Your task to perform on an android device: turn off smart reply in the gmail app Image 0: 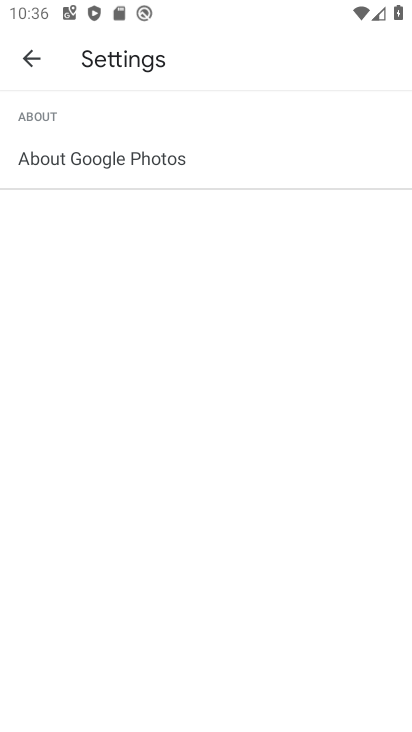
Step 0: press home button
Your task to perform on an android device: turn off smart reply in the gmail app Image 1: 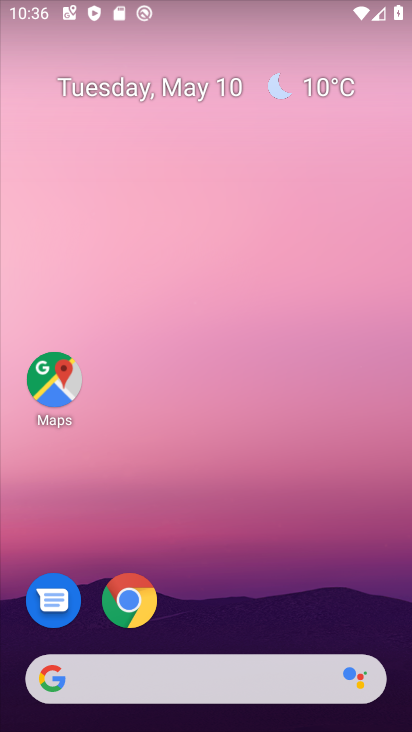
Step 1: drag from (271, 361) to (225, 90)
Your task to perform on an android device: turn off smart reply in the gmail app Image 2: 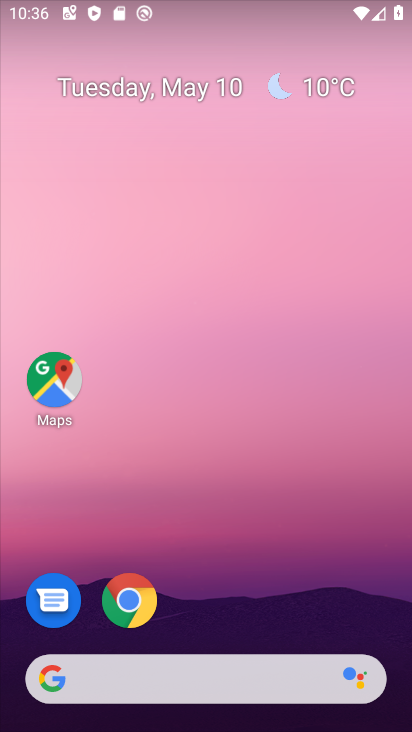
Step 2: drag from (239, 548) to (209, 45)
Your task to perform on an android device: turn off smart reply in the gmail app Image 3: 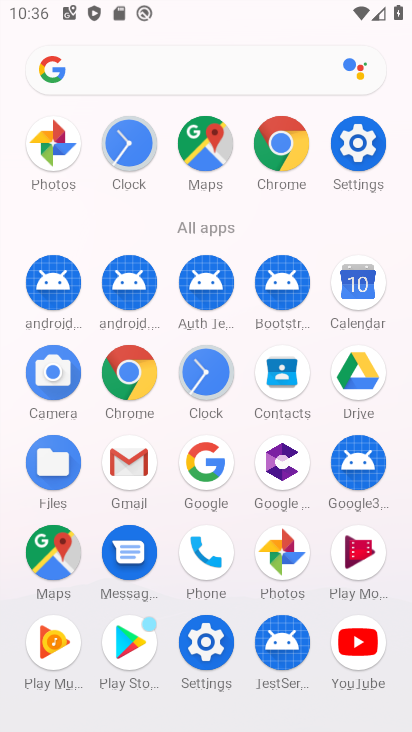
Step 3: click (109, 474)
Your task to perform on an android device: turn off smart reply in the gmail app Image 4: 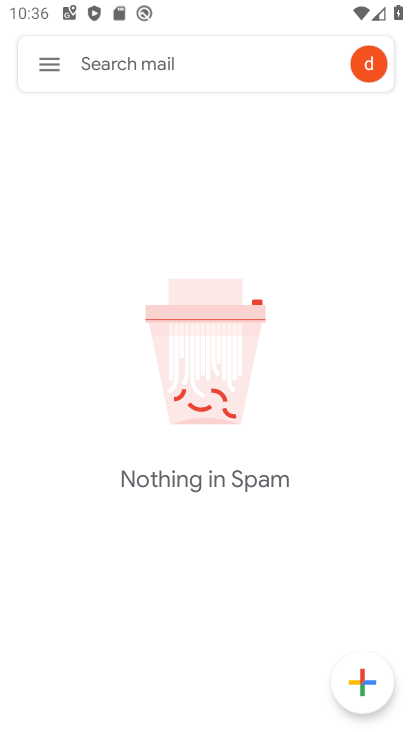
Step 4: click (50, 58)
Your task to perform on an android device: turn off smart reply in the gmail app Image 5: 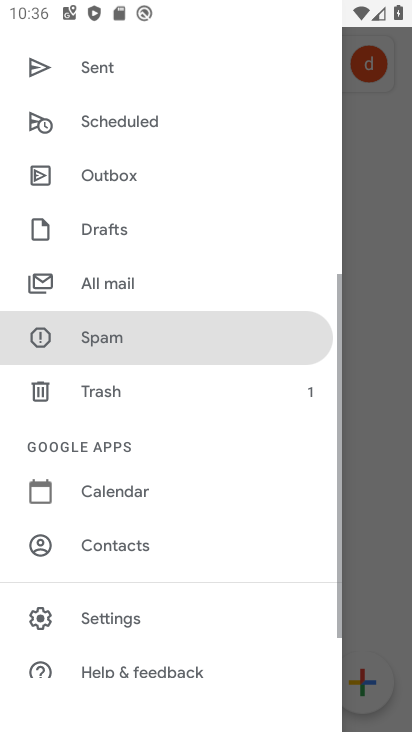
Step 5: click (140, 612)
Your task to perform on an android device: turn off smart reply in the gmail app Image 6: 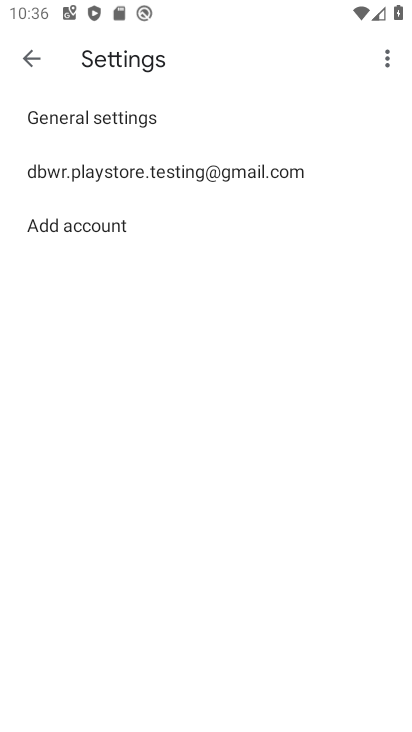
Step 6: click (212, 174)
Your task to perform on an android device: turn off smart reply in the gmail app Image 7: 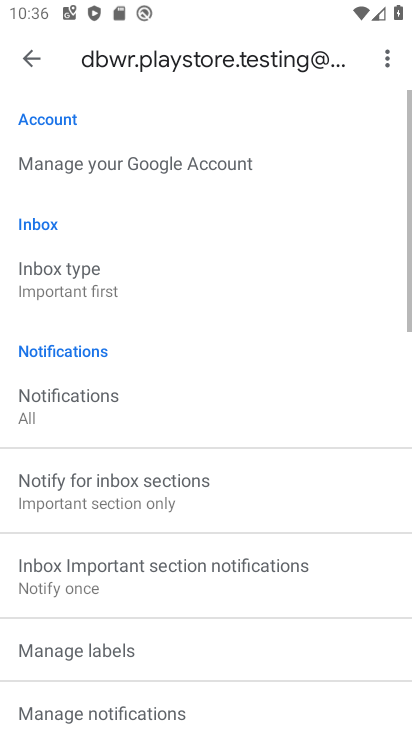
Step 7: drag from (186, 673) to (226, 99)
Your task to perform on an android device: turn off smart reply in the gmail app Image 8: 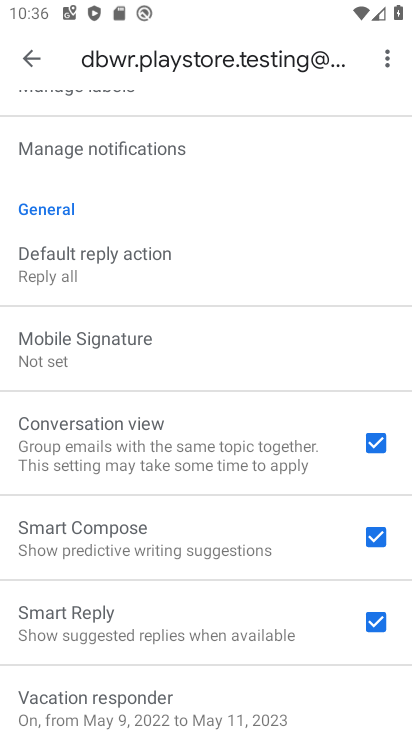
Step 8: click (381, 621)
Your task to perform on an android device: turn off smart reply in the gmail app Image 9: 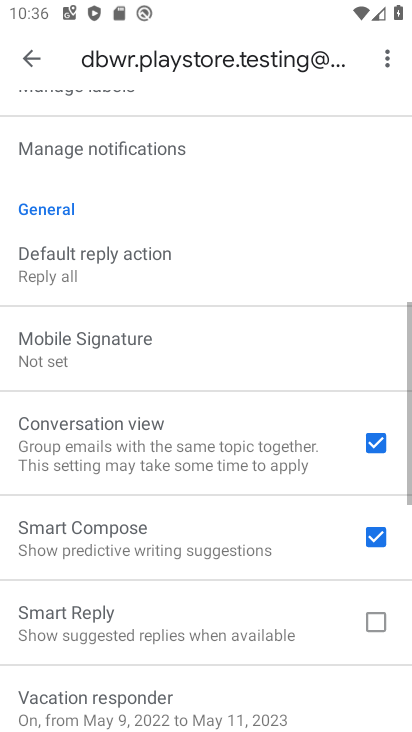
Step 9: task complete